Your task to perform on an android device: Add "acer predator" to the cart on ebay.com Image 0: 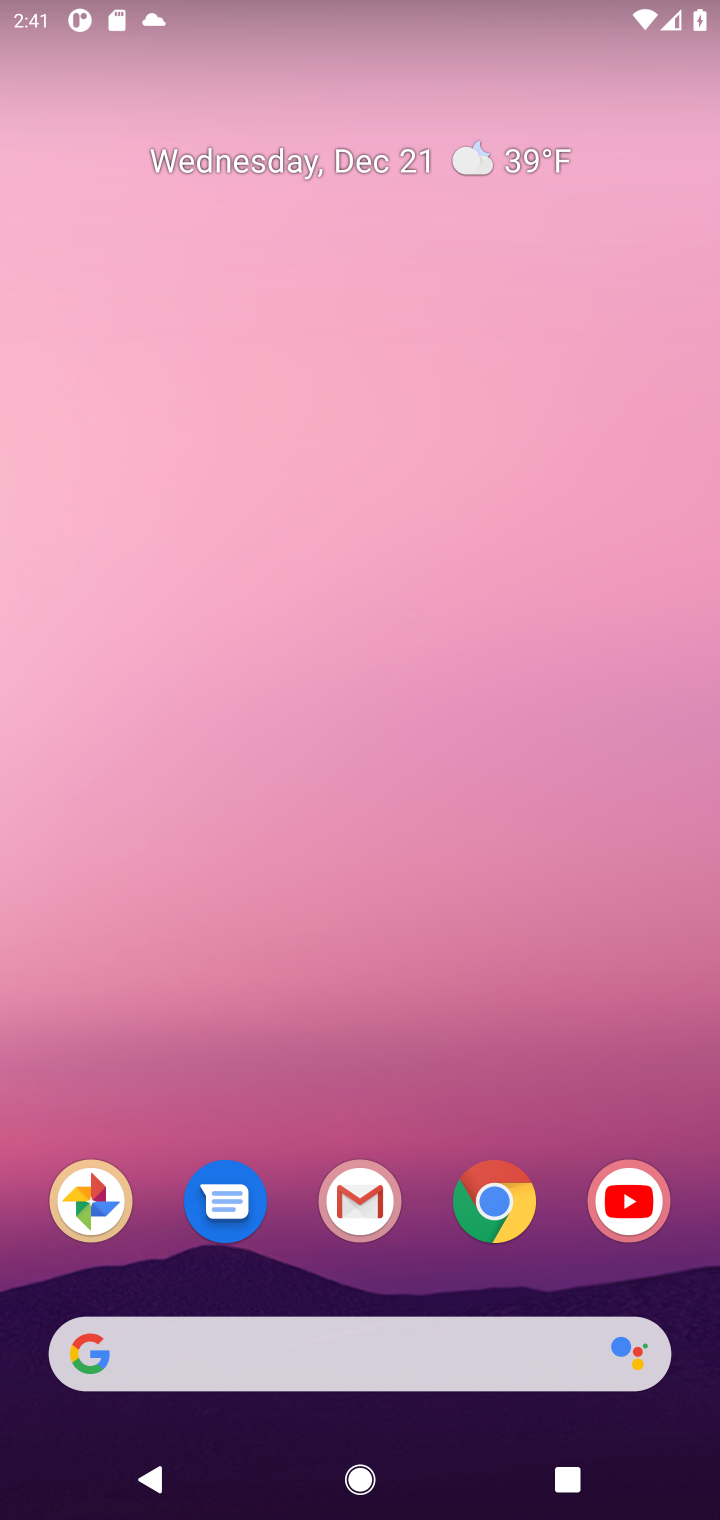
Step 0: click (503, 1211)
Your task to perform on an android device: Add "acer predator" to the cart on ebay.com Image 1: 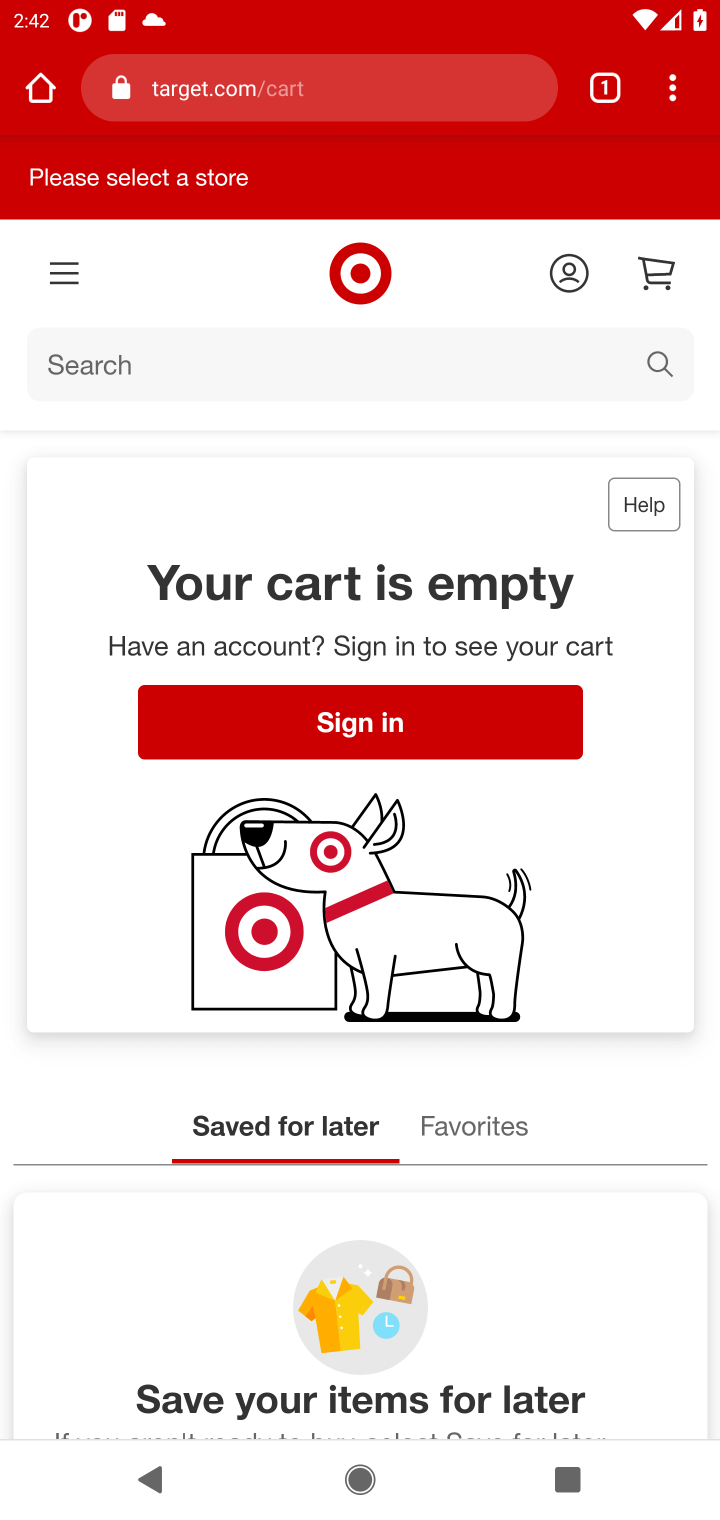
Step 1: click (251, 102)
Your task to perform on an android device: Add "acer predator" to the cart on ebay.com Image 2: 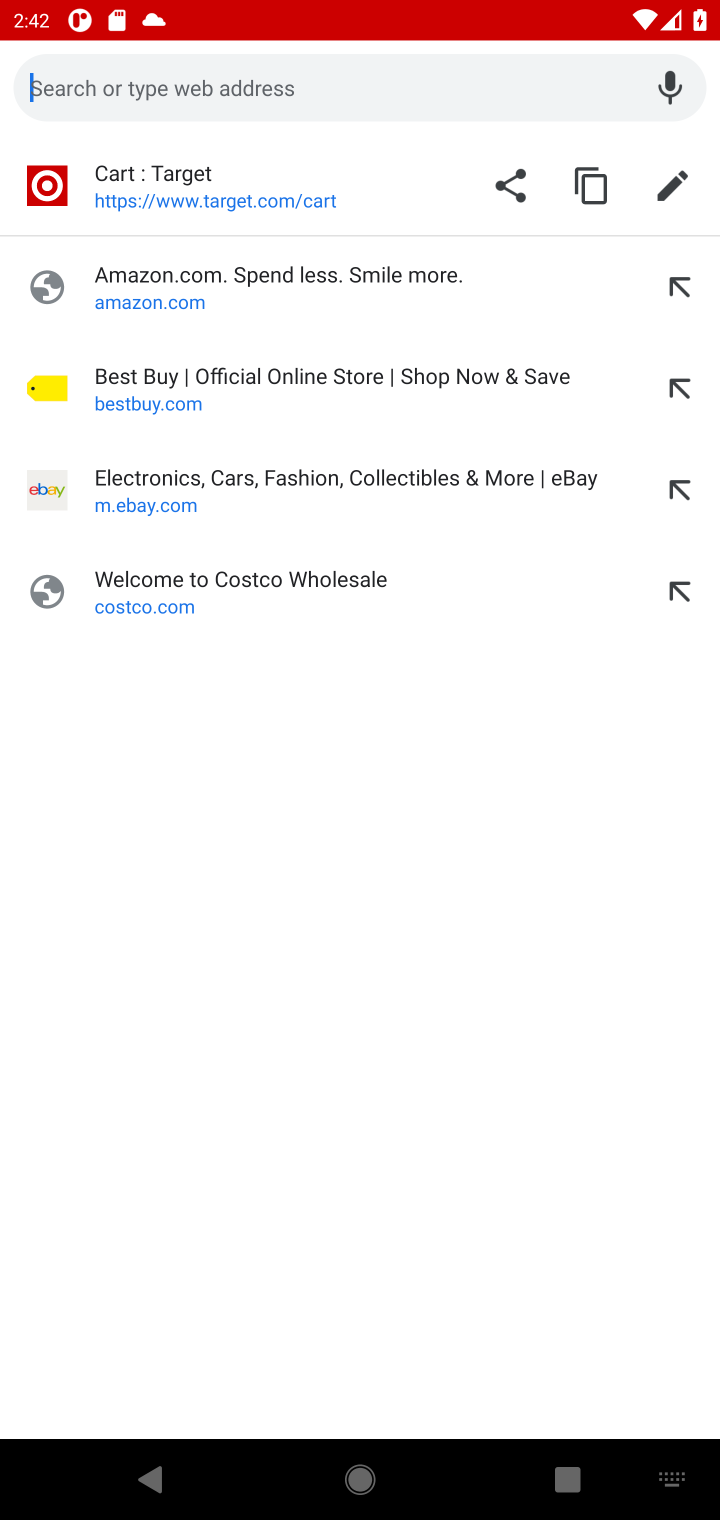
Step 2: click (128, 491)
Your task to perform on an android device: Add "acer predator" to the cart on ebay.com Image 3: 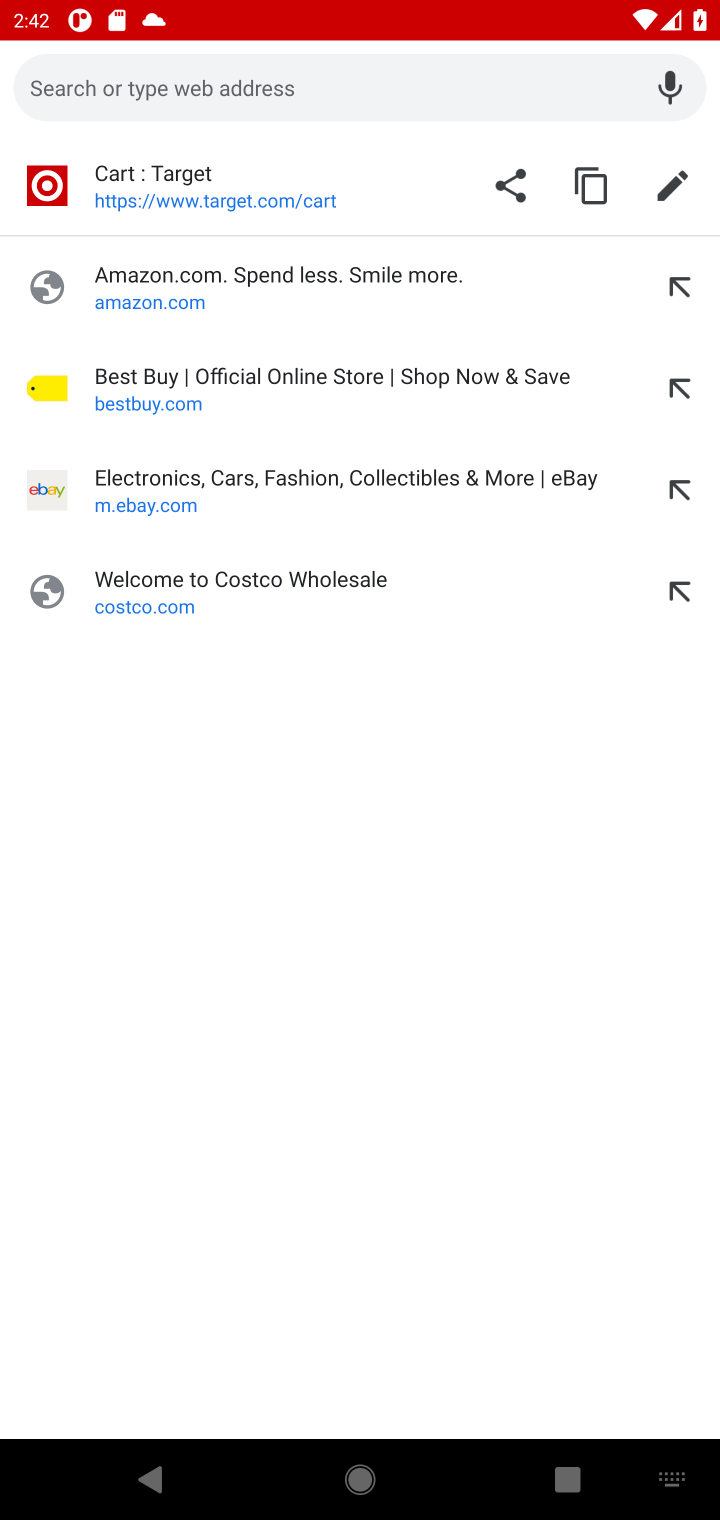
Step 3: click (128, 491)
Your task to perform on an android device: Add "acer predator" to the cart on ebay.com Image 4: 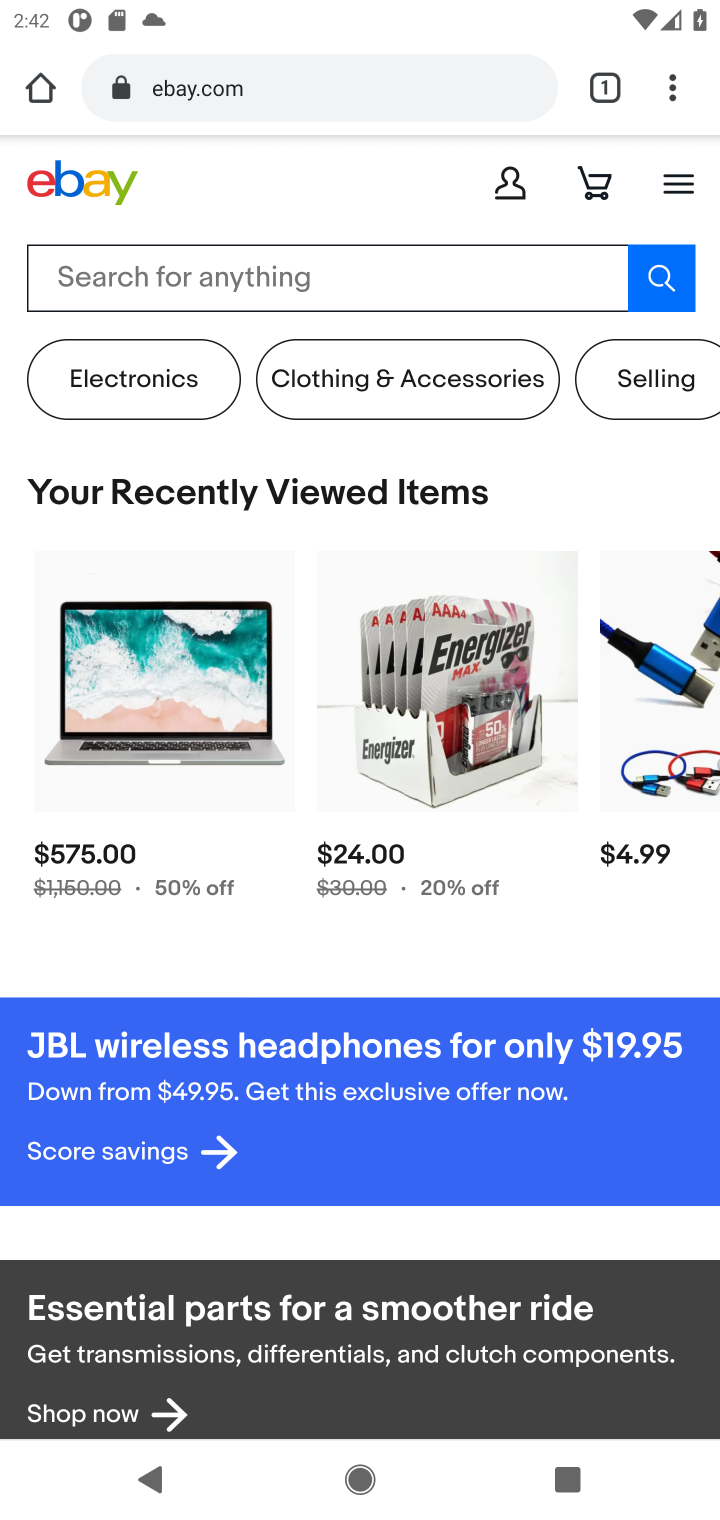
Step 4: click (128, 271)
Your task to perform on an android device: Add "acer predator" to the cart on ebay.com Image 5: 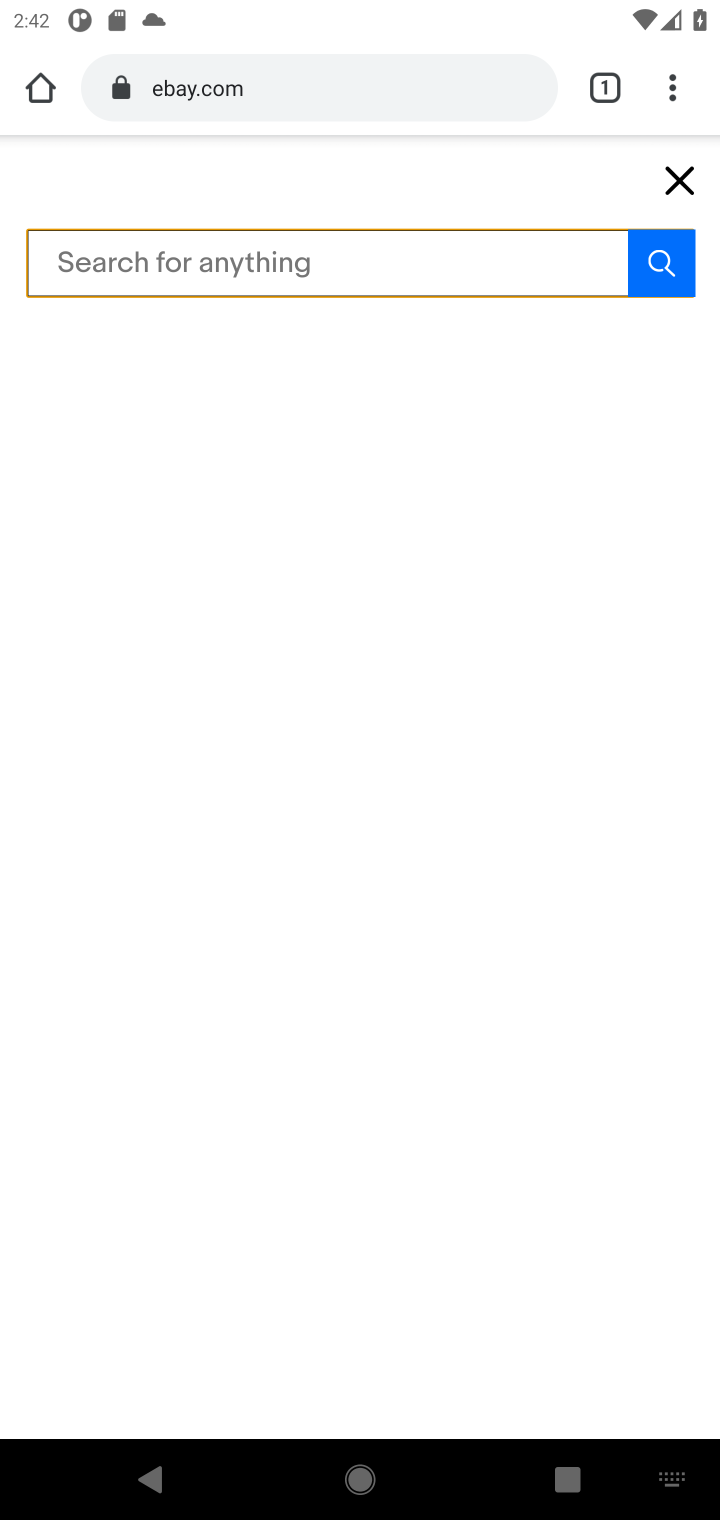
Step 5: type "acer predator"
Your task to perform on an android device: Add "acer predator" to the cart on ebay.com Image 6: 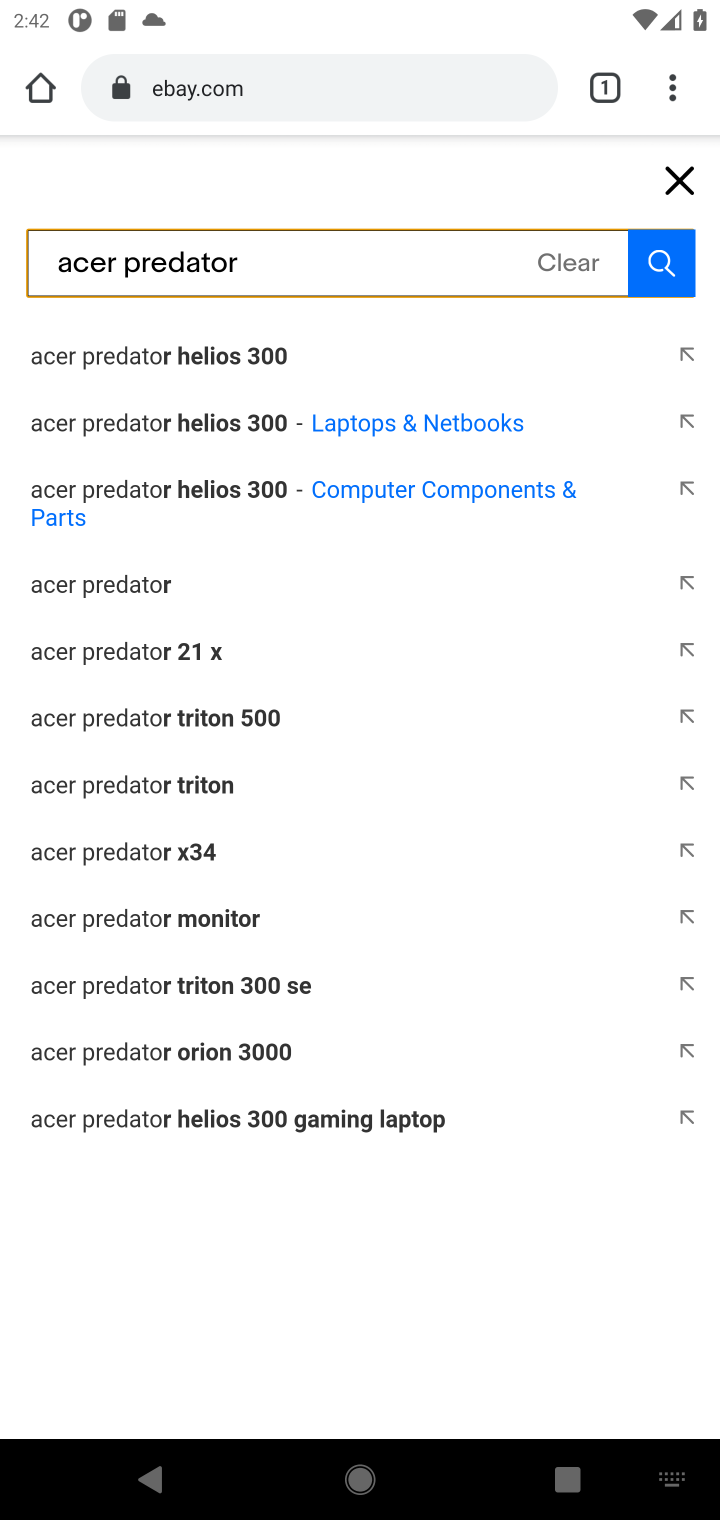
Step 6: click (117, 593)
Your task to perform on an android device: Add "acer predator" to the cart on ebay.com Image 7: 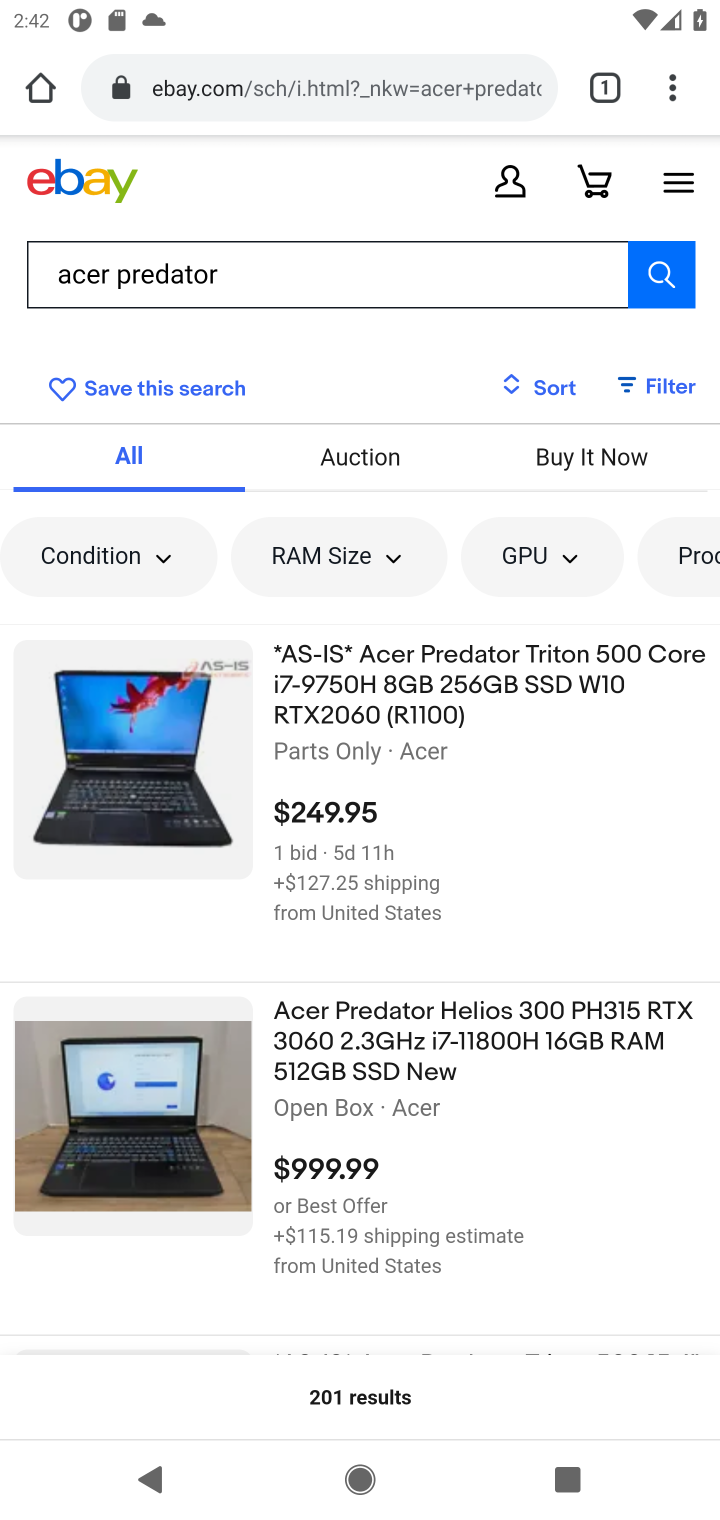
Step 7: drag from (422, 1057) to (425, 523)
Your task to perform on an android device: Add "acer predator" to the cart on ebay.com Image 8: 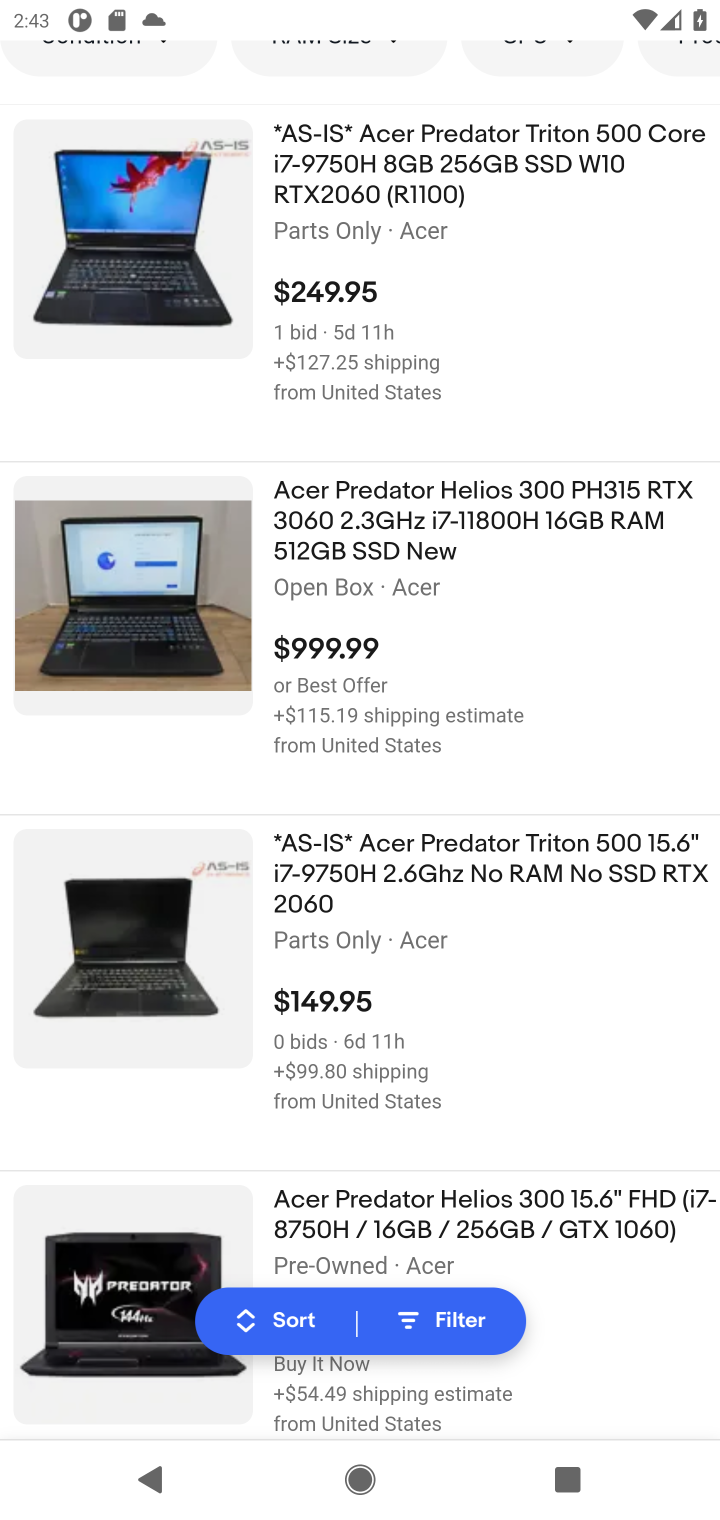
Step 8: drag from (390, 1005) to (350, 482)
Your task to perform on an android device: Add "acer predator" to the cart on ebay.com Image 9: 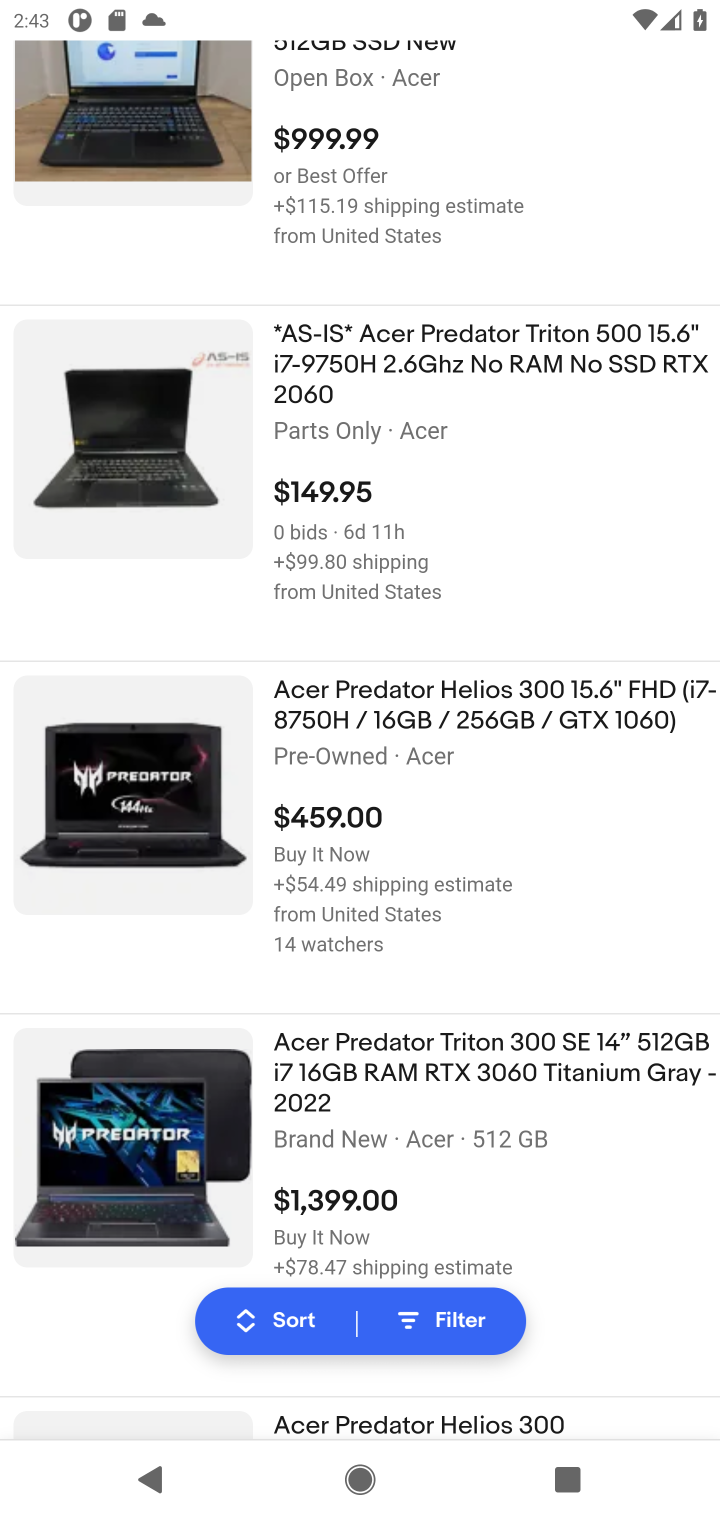
Step 9: click (340, 739)
Your task to perform on an android device: Add "acer predator" to the cart on ebay.com Image 10: 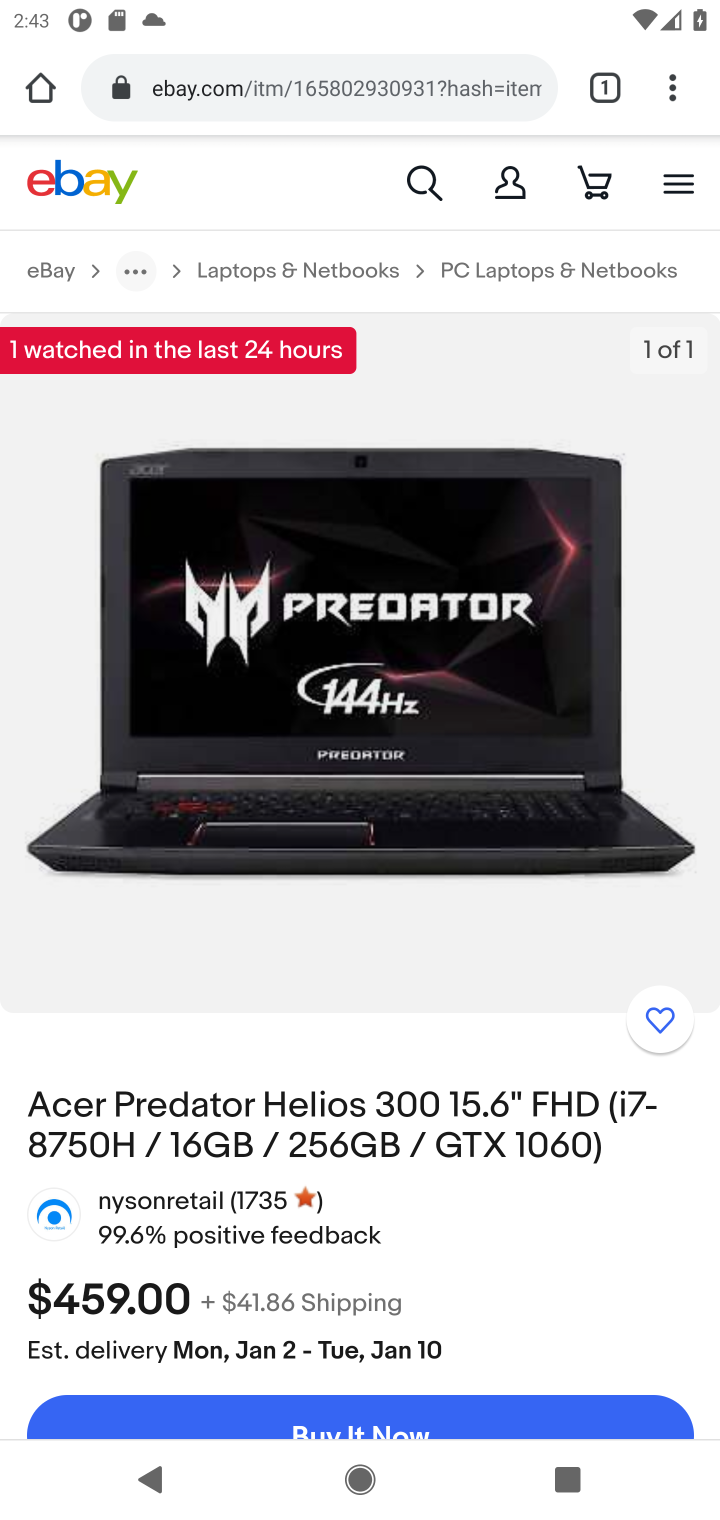
Step 10: drag from (304, 1090) to (291, 741)
Your task to perform on an android device: Add "acer predator" to the cart on ebay.com Image 11: 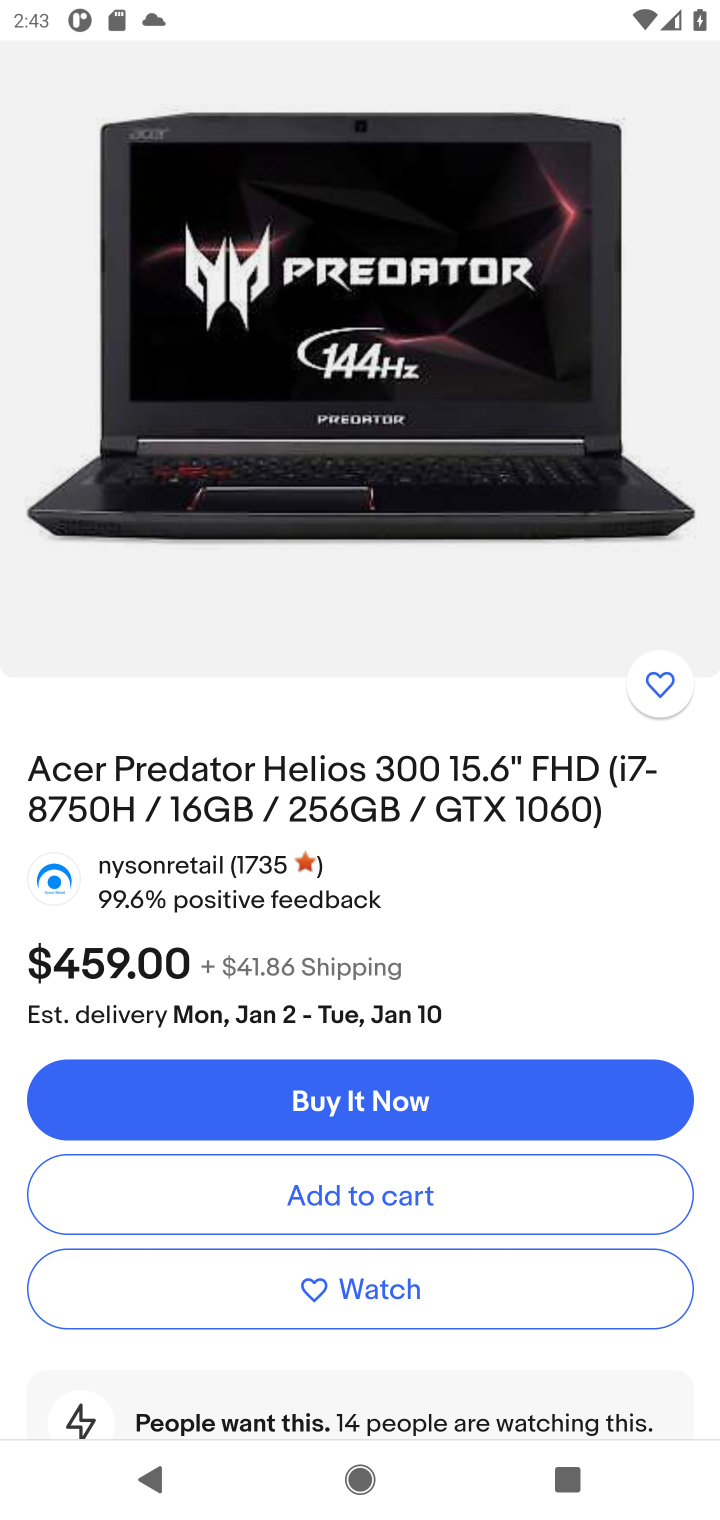
Step 11: click (309, 1188)
Your task to perform on an android device: Add "acer predator" to the cart on ebay.com Image 12: 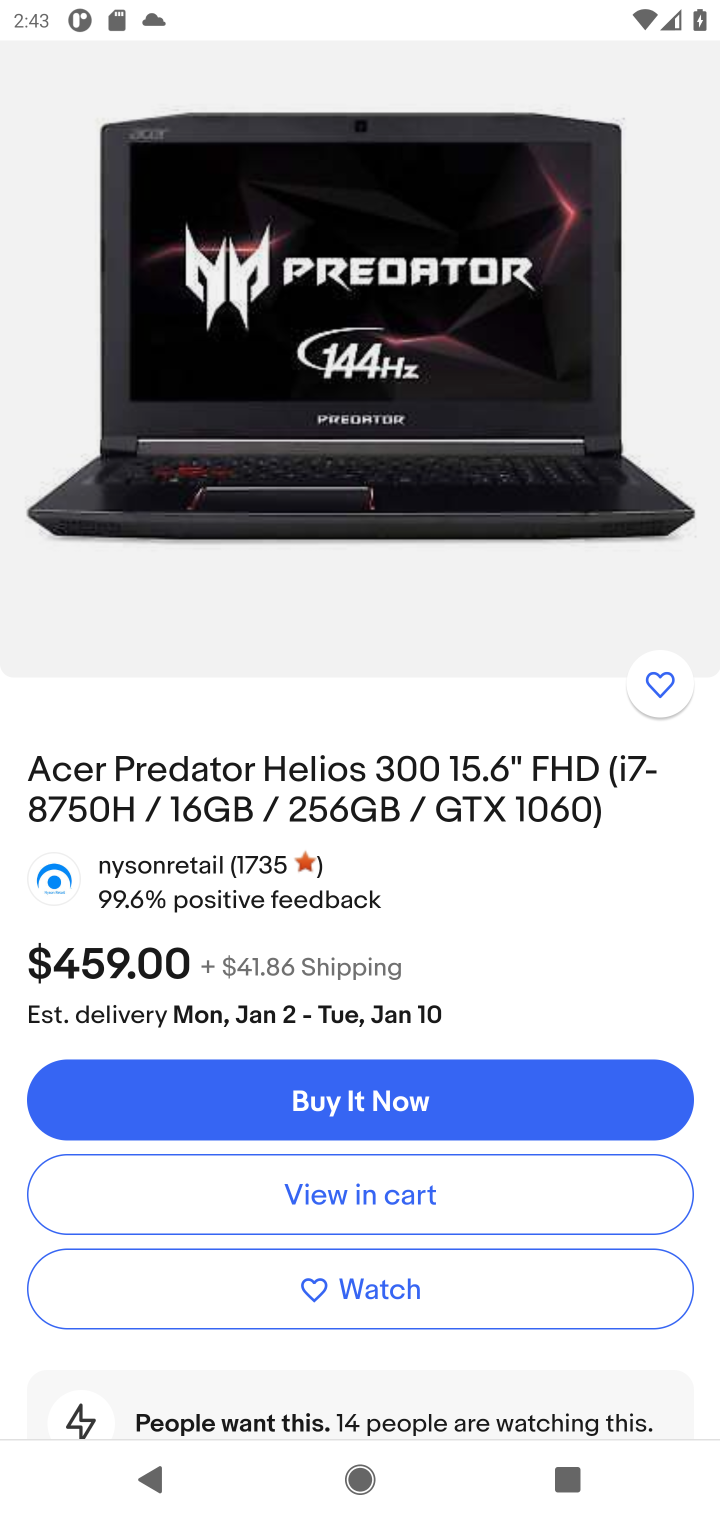
Step 12: task complete